Your task to perform on an android device: check android version Image 0: 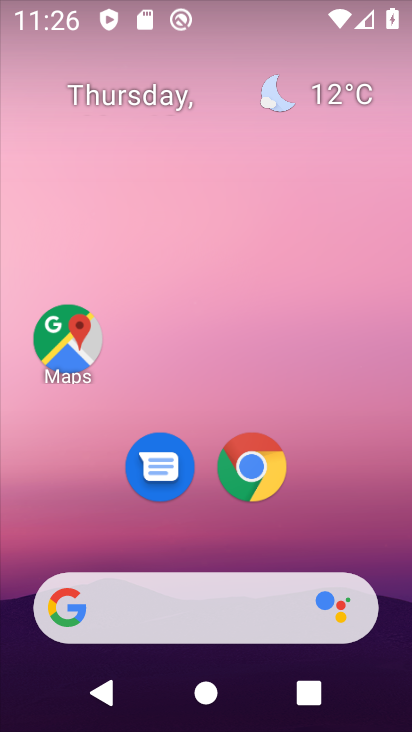
Step 0: drag from (324, 524) to (275, 5)
Your task to perform on an android device: check android version Image 1: 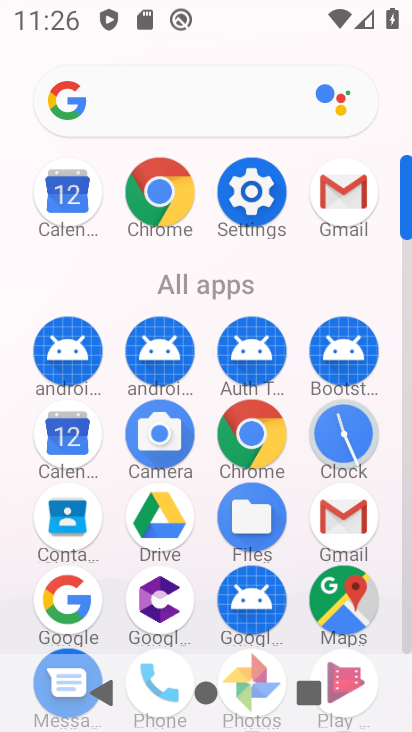
Step 1: click (245, 193)
Your task to perform on an android device: check android version Image 2: 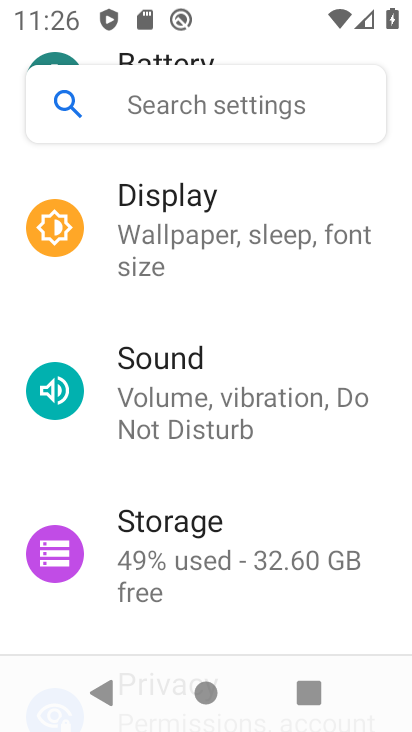
Step 2: drag from (222, 519) to (216, 100)
Your task to perform on an android device: check android version Image 3: 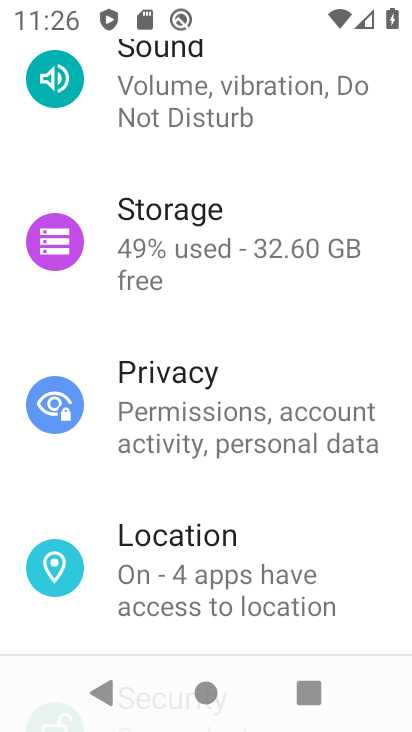
Step 3: drag from (204, 494) to (149, 39)
Your task to perform on an android device: check android version Image 4: 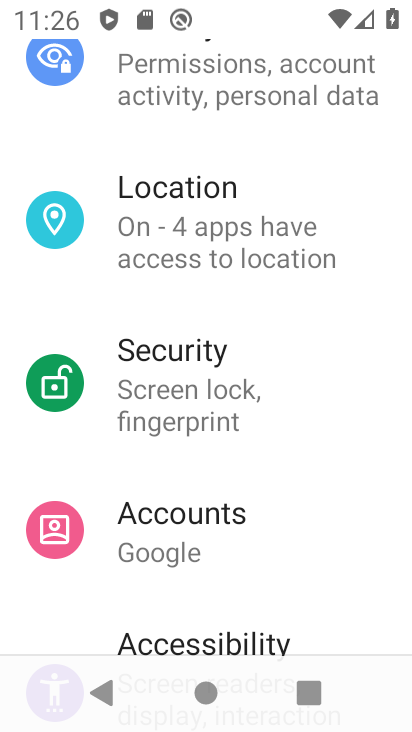
Step 4: drag from (243, 604) to (235, 3)
Your task to perform on an android device: check android version Image 5: 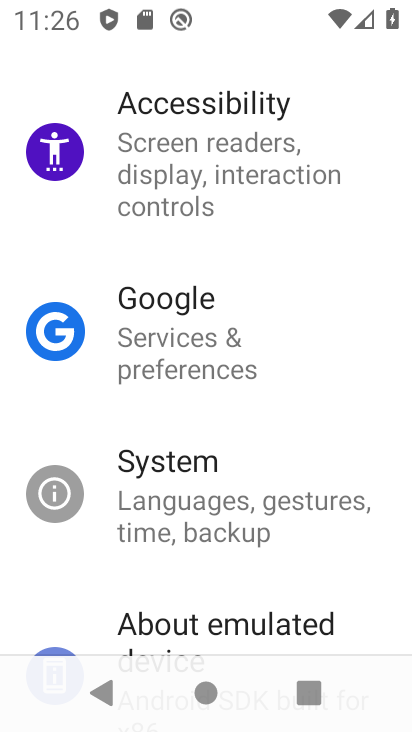
Step 5: drag from (221, 578) to (238, 28)
Your task to perform on an android device: check android version Image 6: 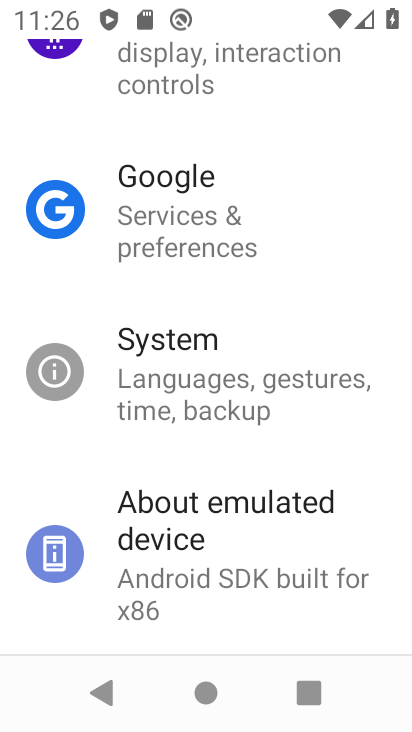
Step 6: click (198, 521)
Your task to perform on an android device: check android version Image 7: 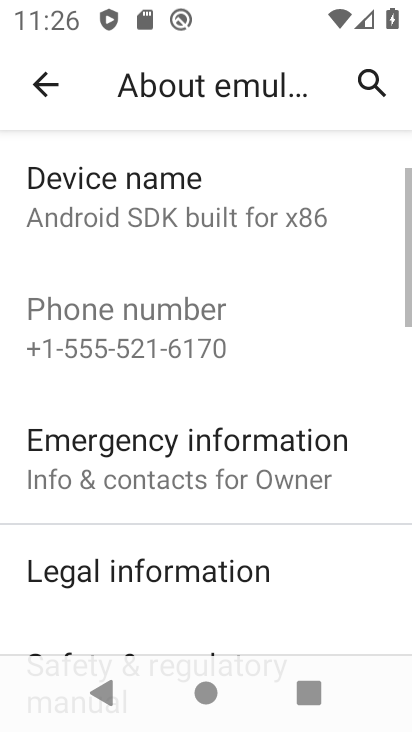
Step 7: drag from (174, 606) to (120, 162)
Your task to perform on an android device: check android version Image 8: 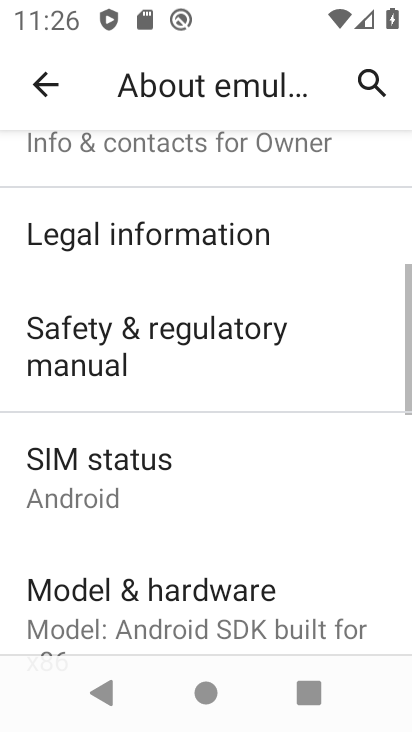
Step 8: drag from (143, 597) to (74, 50)
Your task to perform on an android device: check android version Image 9: 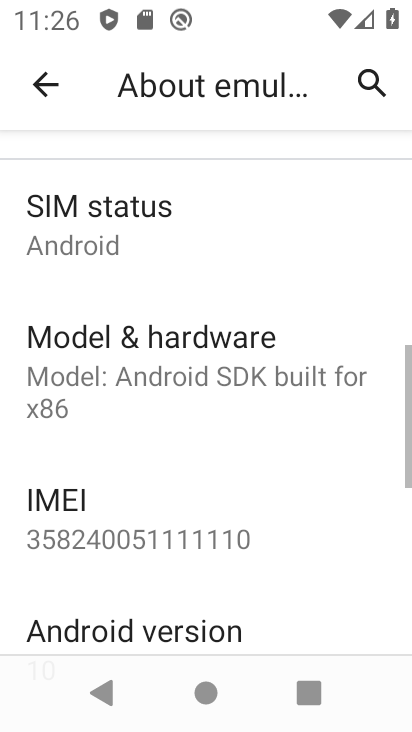
Step 9: drag from (133, 456) to (168, 150)
Your task to perform on an android device: check android version Image 10: 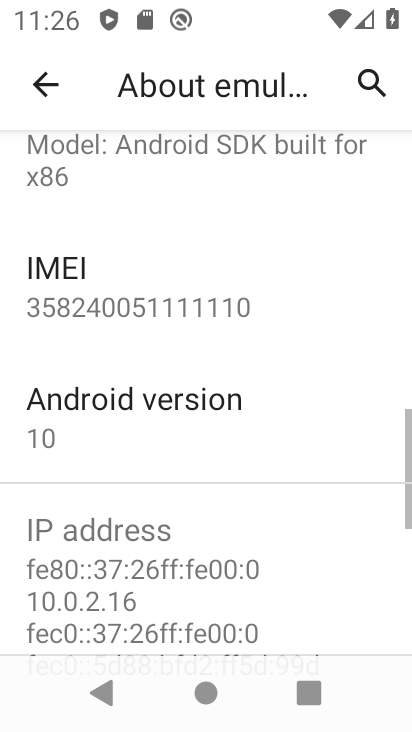
Step 10: click (66, 398)
Your task to perform on an android device: check android version Image 11: 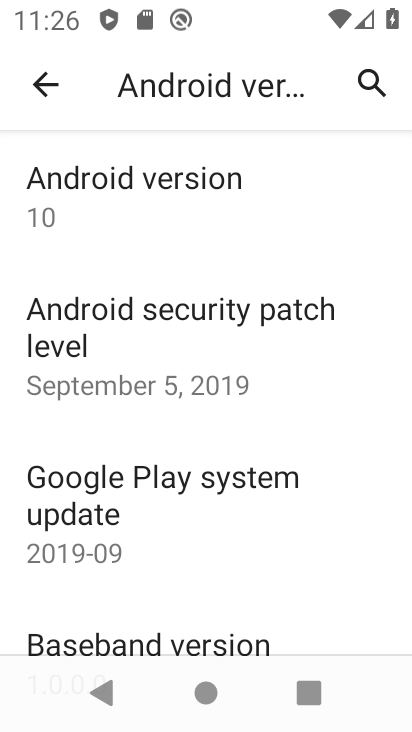
Step 11: task complete